Your task to perform on an android device: open a bookmark in the chrome app Image 0: 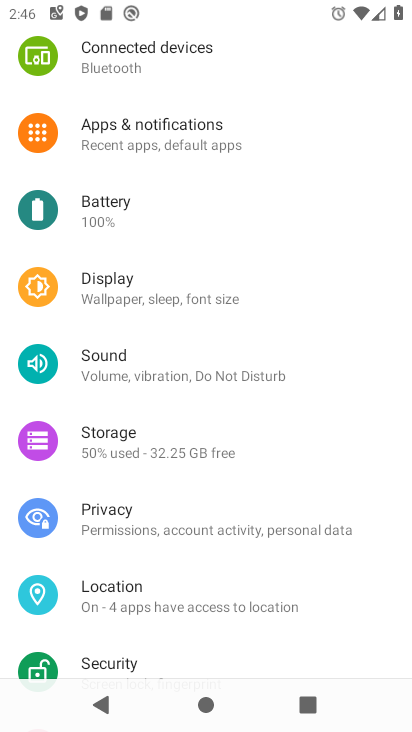
Step 0: press home button
Your task to perform on an android device: open a bookmark in the chrome app Image 1: 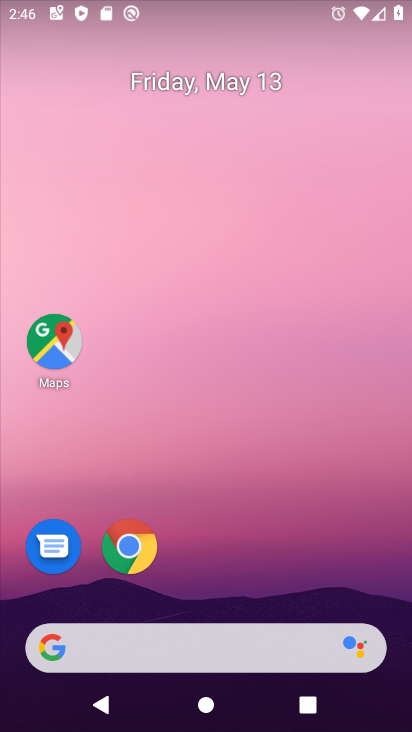
Step 1: click (126, 543)
Your task to perform on an android device: open a bookmark in the chrome app Image 2: 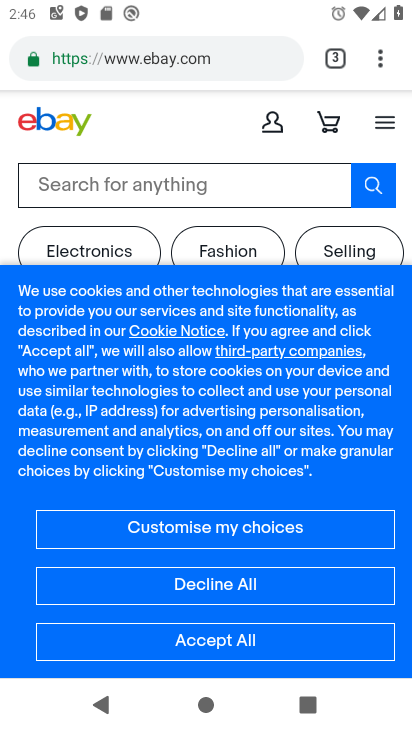
Step 2: task complete